Your task to perform on an android device: Open Amazon Image 0: 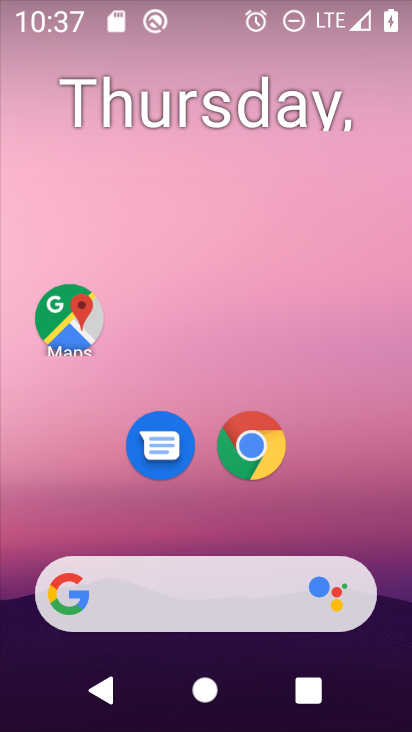
Step 0: drag from (383, 624) to (395, 573)
Your task to perform on an android device: Open Amazon Image 1: 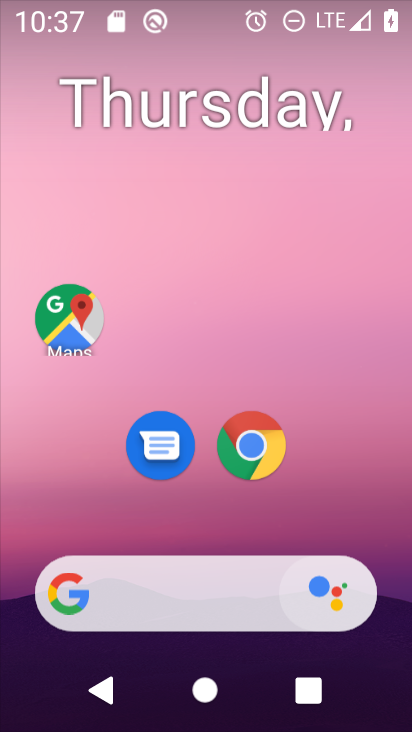
Step 1: drag from (408, 169) to (351, 18)
Your task to perform on an android device: Open Amazon Image 2: 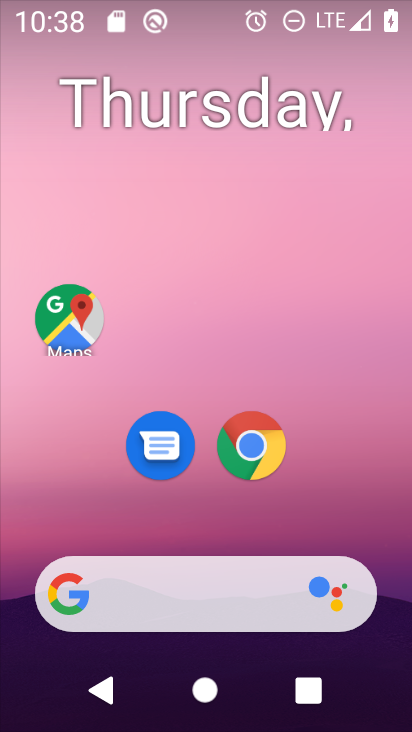
Step 2: drag from (401, 615) to (324, 27)
Your task to perform on an android device: Open Amazon Image 3: 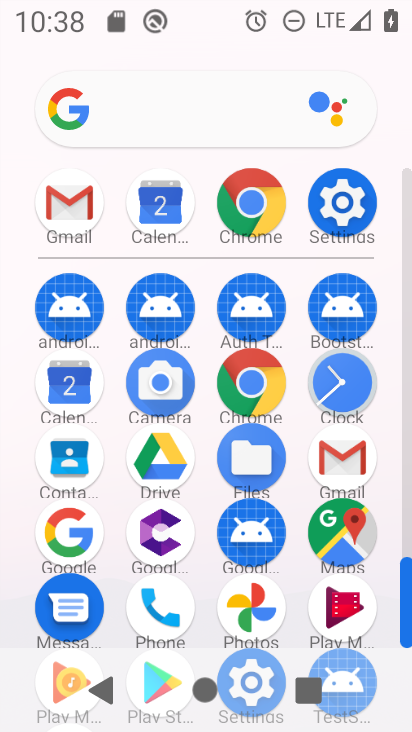
Step 3: click (88, 515)
Your task to perform on an android device: Open Amazon Image 4: 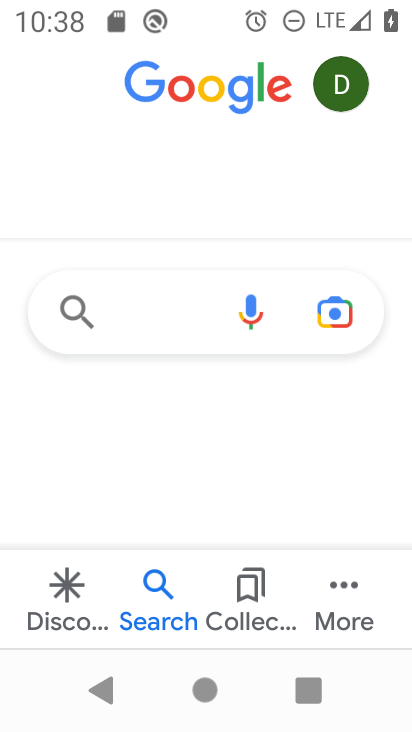
Step 4: click (143, 311)
Your task to perform on an android device: Open Amazon Image 5: 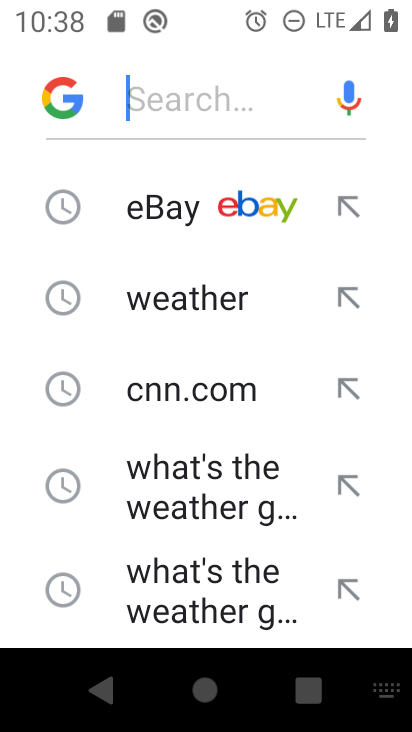
Step 5: drag from (184, 543) to (204, 89)
Your task to perform on an android device: Open Amazon Image 6: 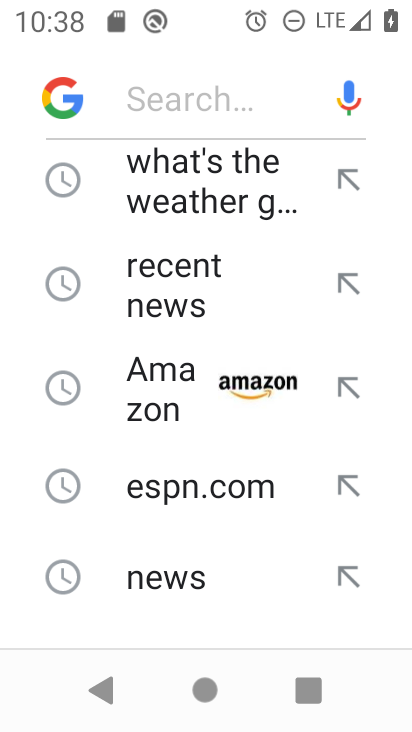
Step 6: click (193, 380)
Your task to perform on an android device: Open Amazon Image 7: 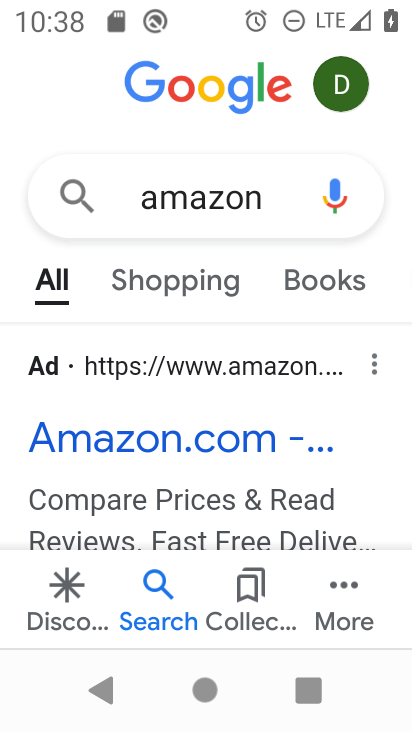
Step 7: task complete